Your task to perform on an android device: turn on wifi Image 0: 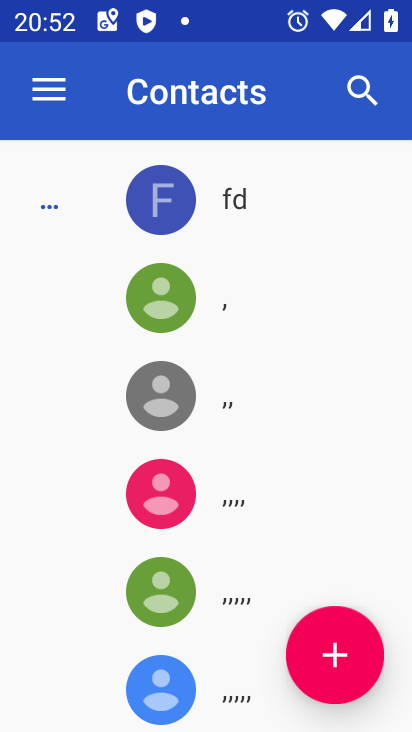
Step 0: press home button
Your task to perform on an android device: turn on wifi Image 1: 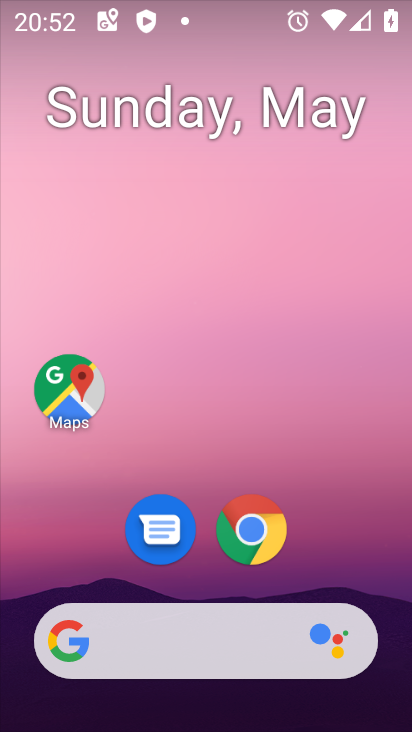
Step 1: drag from (363, 607) to (355, 67)
Your task to perform on an android device: turn on wifi Image 2: 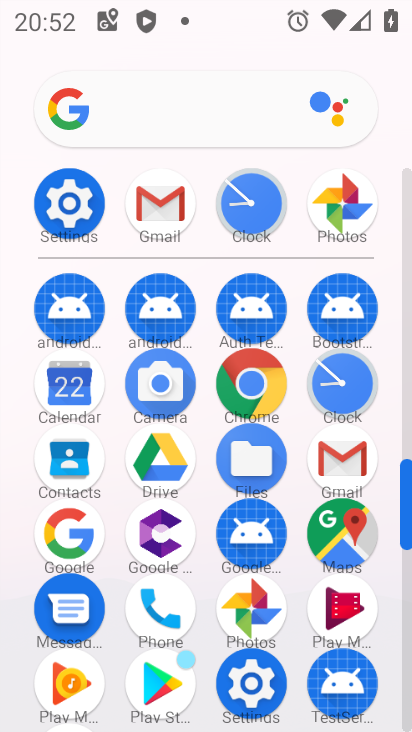
Step 2: click (65, 202)
Your task to perform on an android device: turn on wifi Image 3: 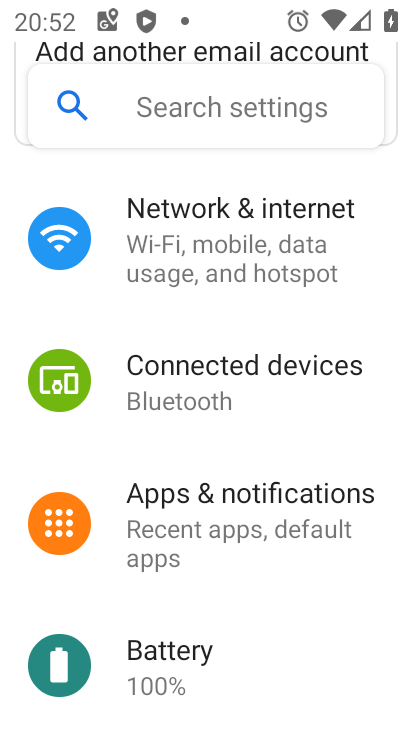
Step 3: click (215, 260)
Your task to perform on an android device: turn on wifi Image 4: 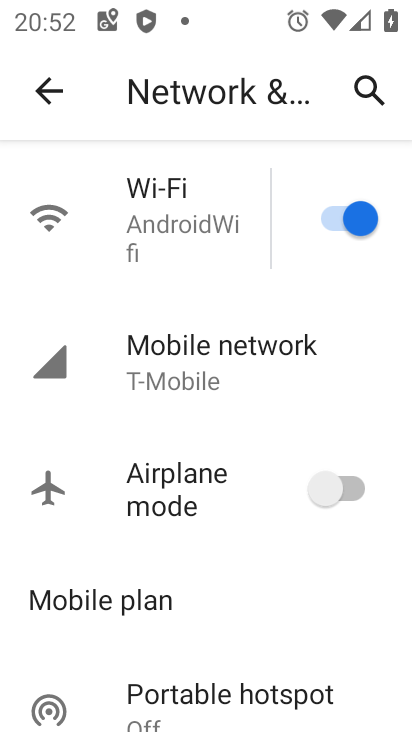
Step 4: task complete